Your task to perform on an android device: Go to wifi settings Image 0: 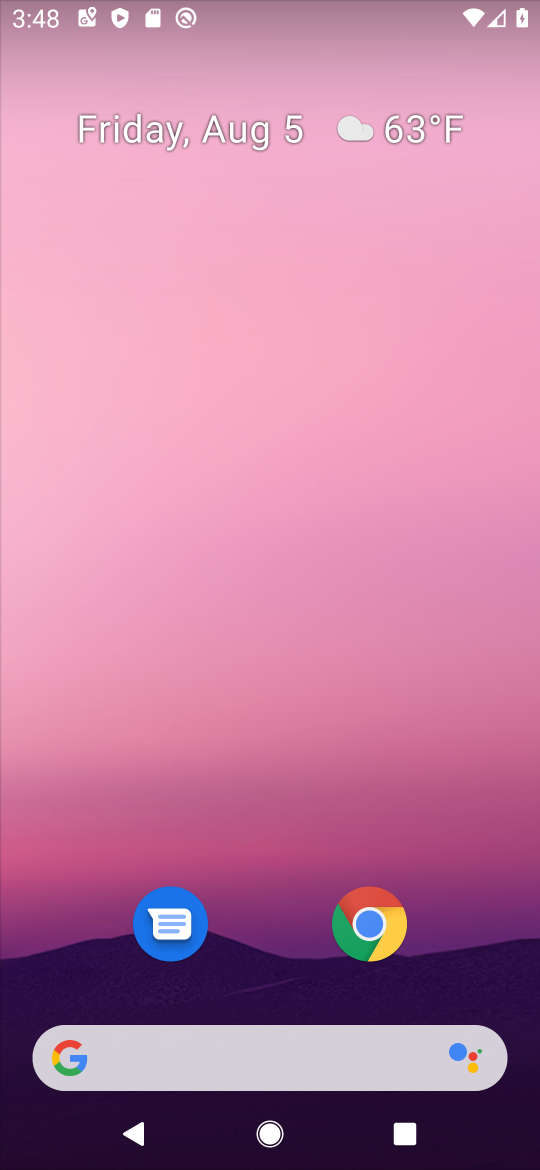
Step 0: drag from (297, 692) to (301, 79)
Your task to perform on an android device: Go to wifi settings Image 1: 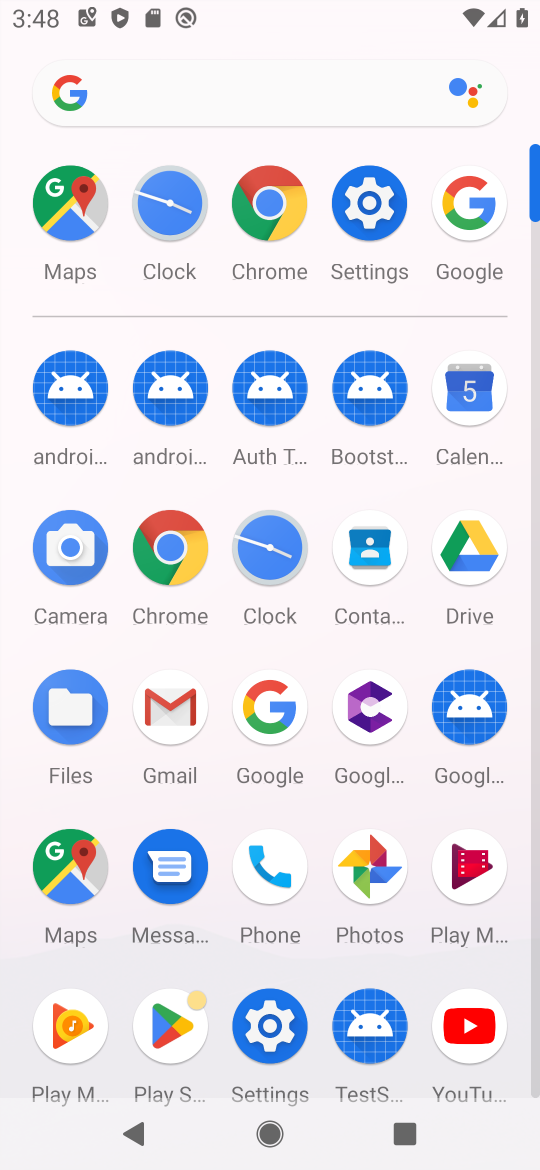
Step 1: click (379, 204)
Your task to perform on an android device: Go to wifi settings Image 2: 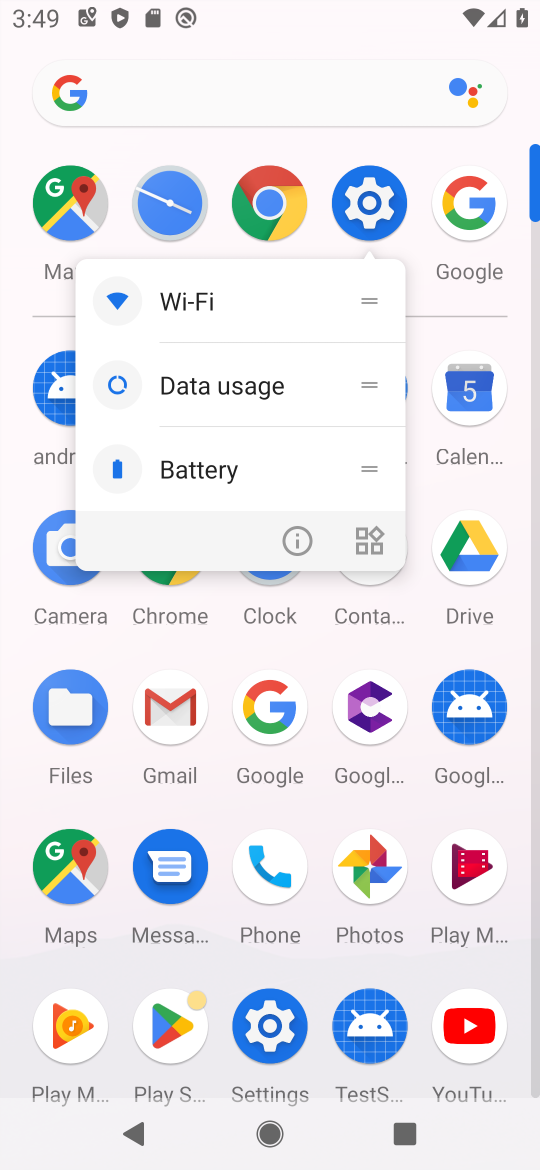
Step 2: click (228, 303)
Your task to perform on an android device: Go to wifi settings Image 3: 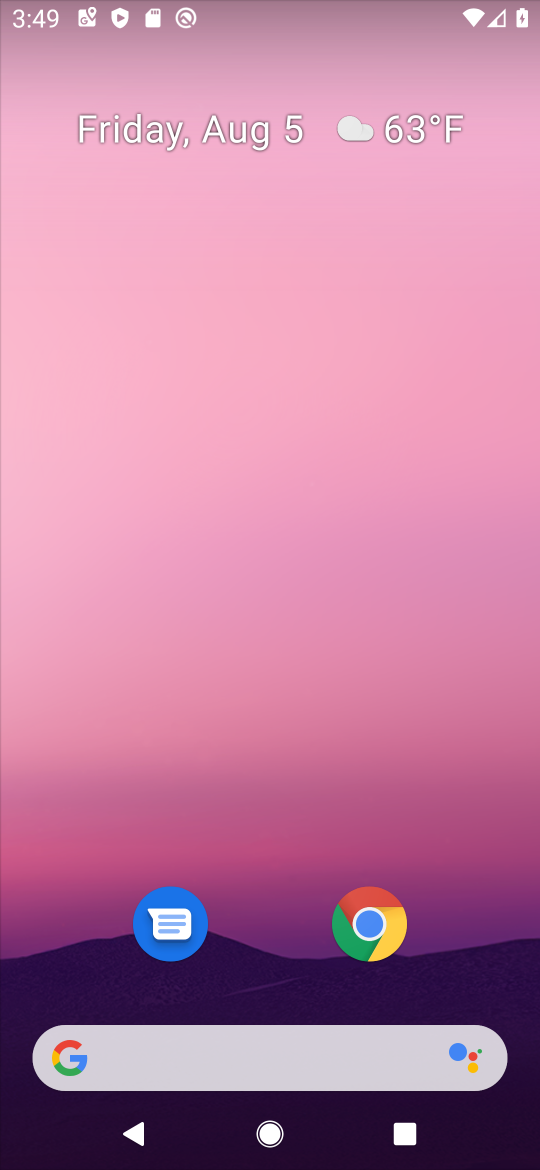
Step 3: drag from (264, 806) to (270, 76)
Your task to perform on an android device: Go to wifi settings Image 4: 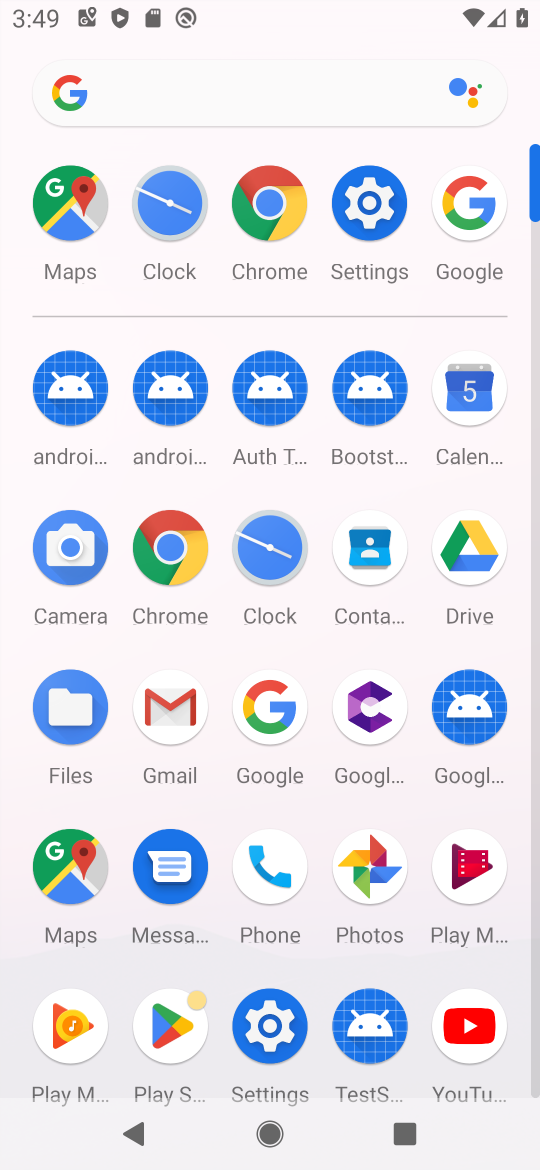
Step 4: click (367, 233)
Your task to perform on an android device: Go to wifi settings Image 5: 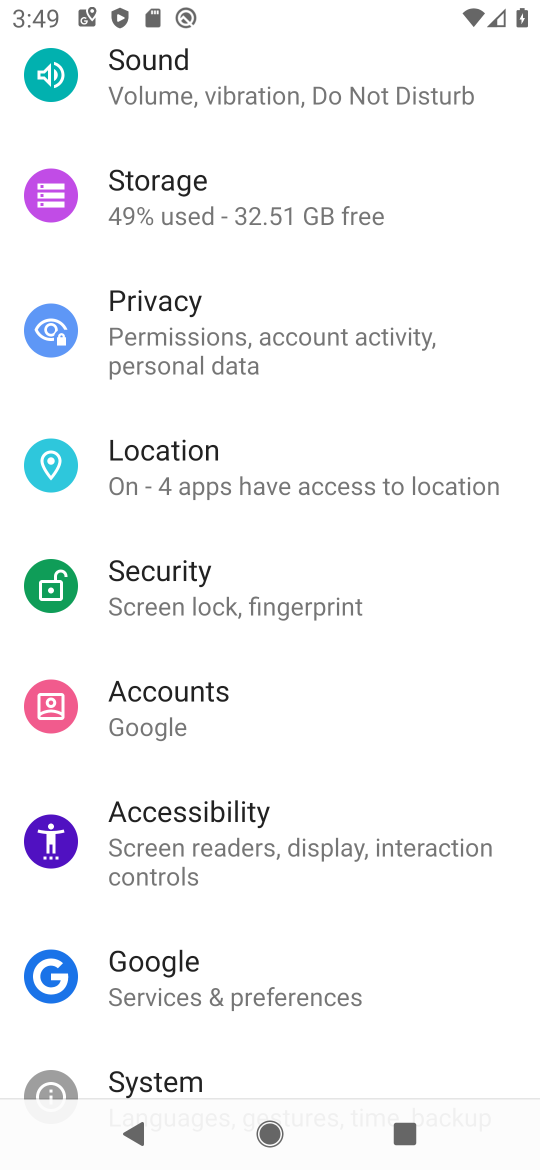
Step 5: drag from (317, 211) to (236, 957)
Your task to perform on an android device: Go to wifi settings Image 6: 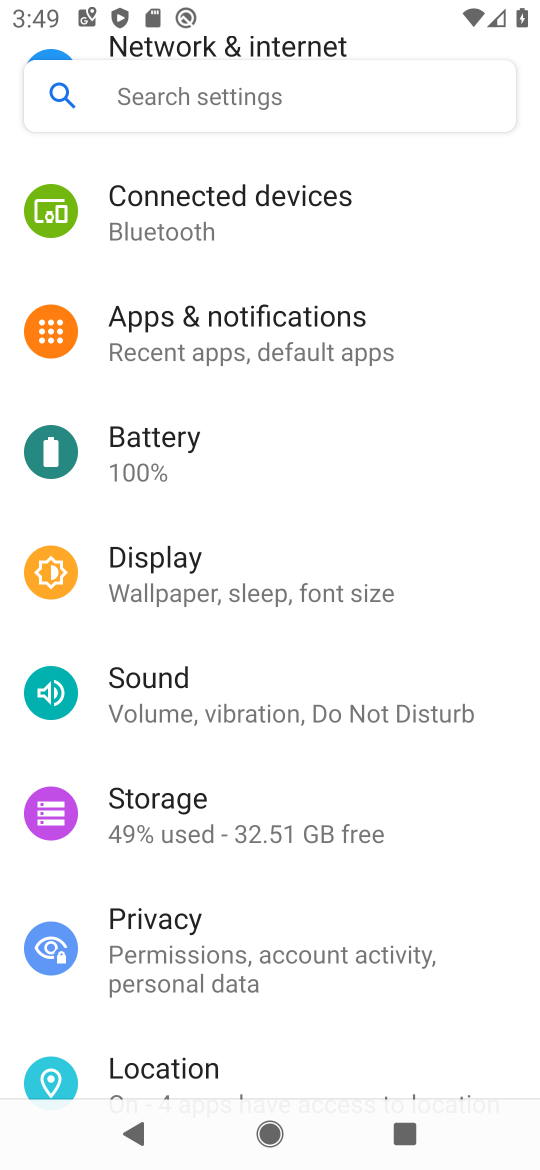
Step 6: drag from (288, 367) to (325, 895)
Your task to perform on an android device: Go to wifi settings Image 7: 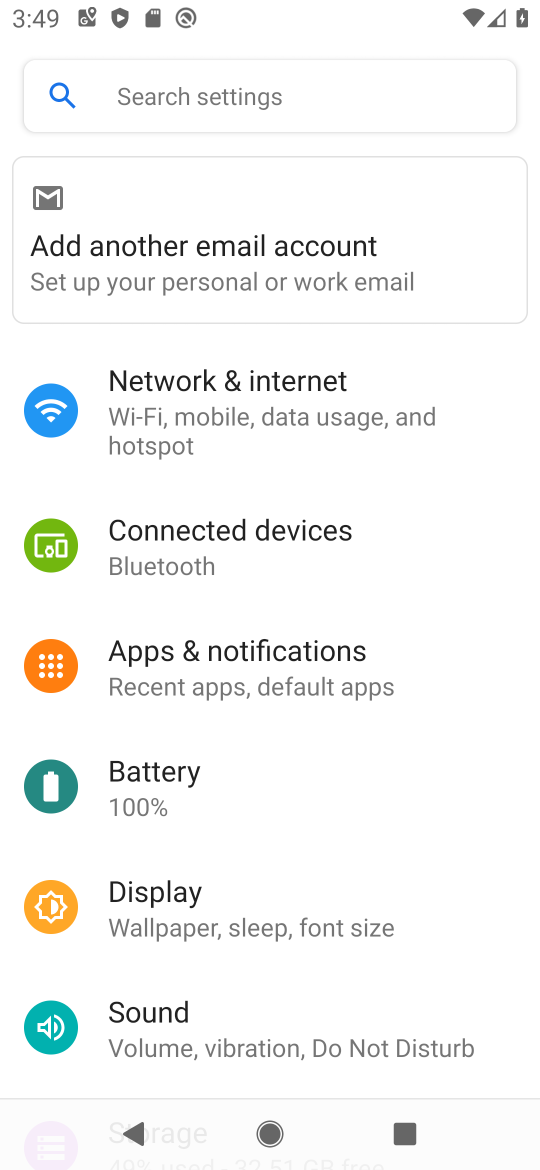
Step 7: click (264, 431)
Your task to perform on an android device: Go to wifi settings Image 8: 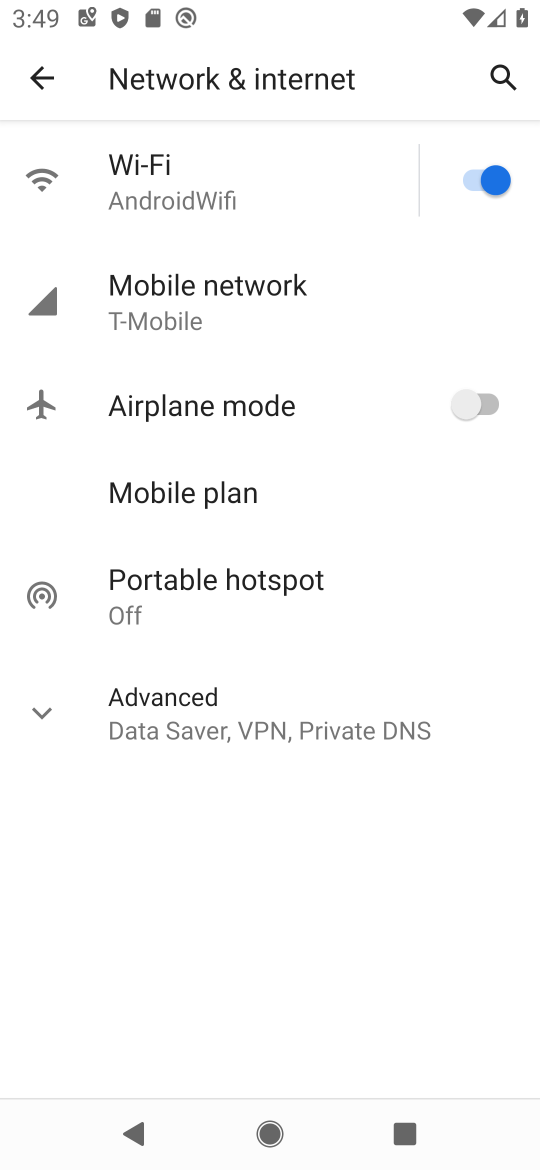
Step 8: click (179, 199)
Your task to perform on an android device: Go to wifi settings Image 9: 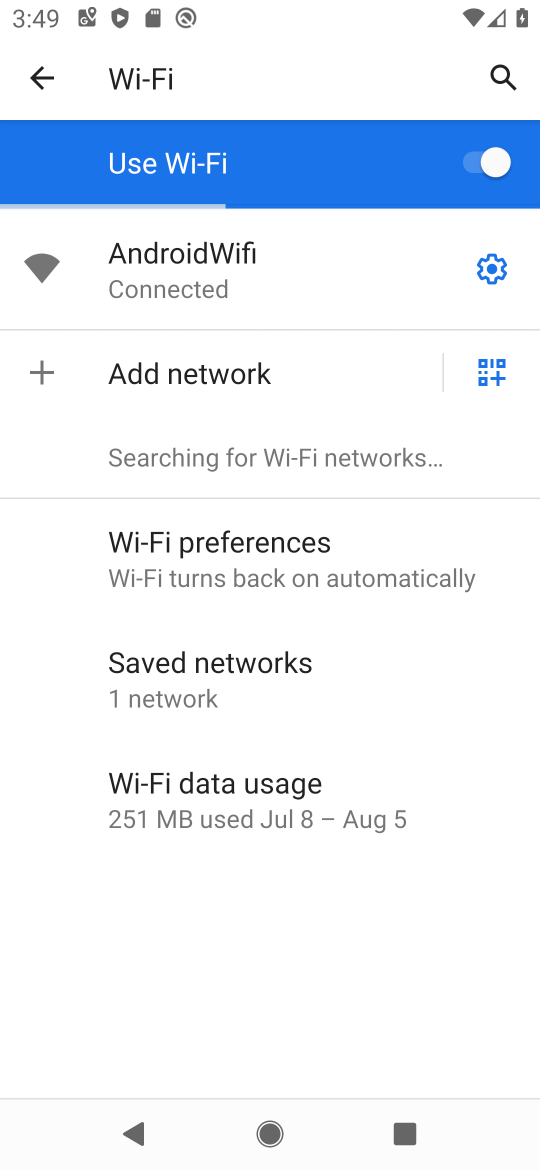
Step 9: task complete